Your task to perform on an android device: change the upload size in google photos Image 0: 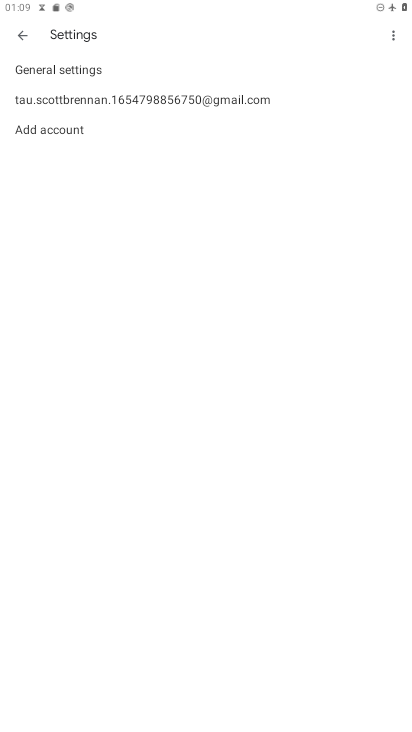
Step 0: press home button
Your task to perform on an android device: change the upload size in google photos Image 1: 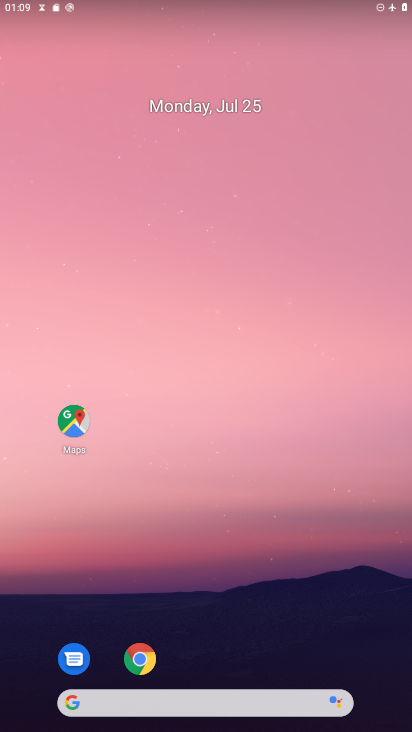
Step 1: drag from (194, 658) to (212, 287)
Your task to perform on an android device: change the upload size in google photos Image 2: 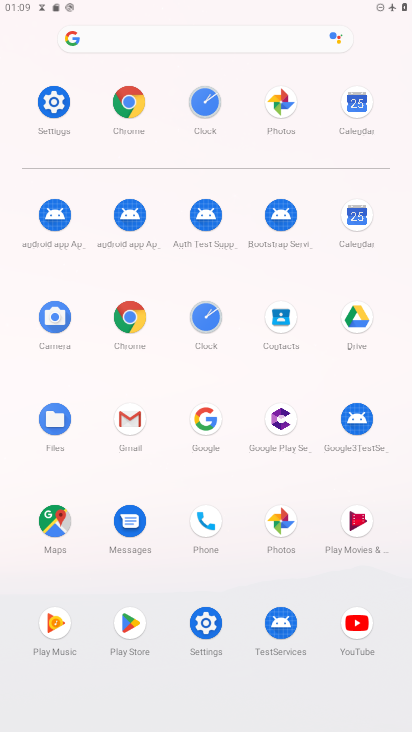
Step 2: click (287, 99)
Your task to perform on an android device: change the upload size in google photos Image 3: 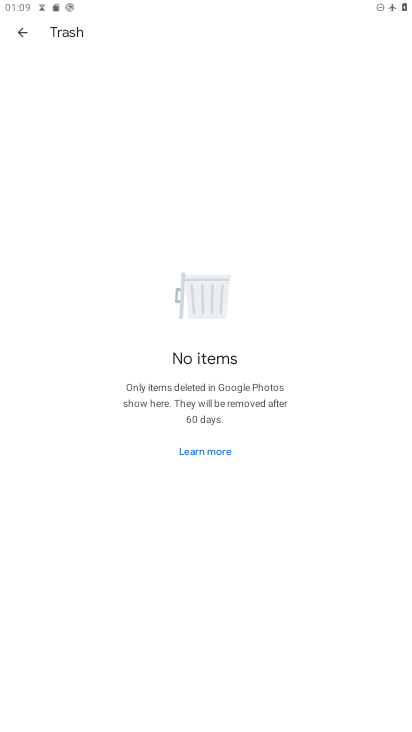
Step 3: click (27, 28)
Your task to perform on an android device: change the upload size in google photos Image 4: 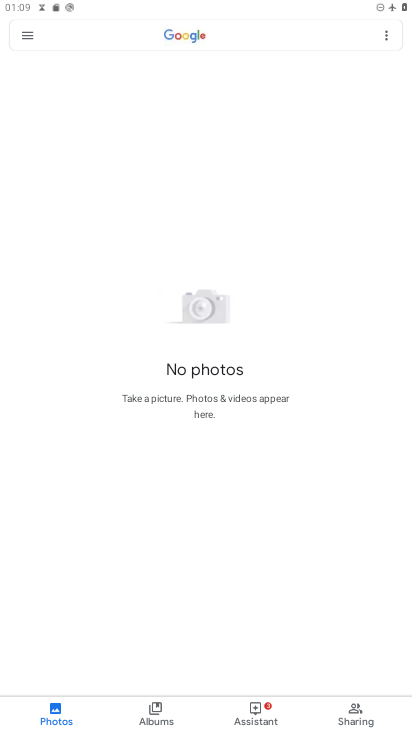
Step 4: click (27, 29)
Your task to perform on an android device: change the upload size in google photos Image 5: 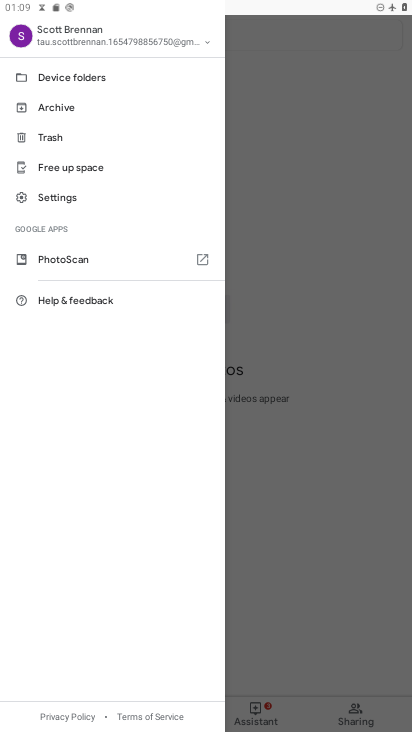
Step 5: click (72, 195)
Your task to perform on an android device: change the upload size in google photos Image 6: 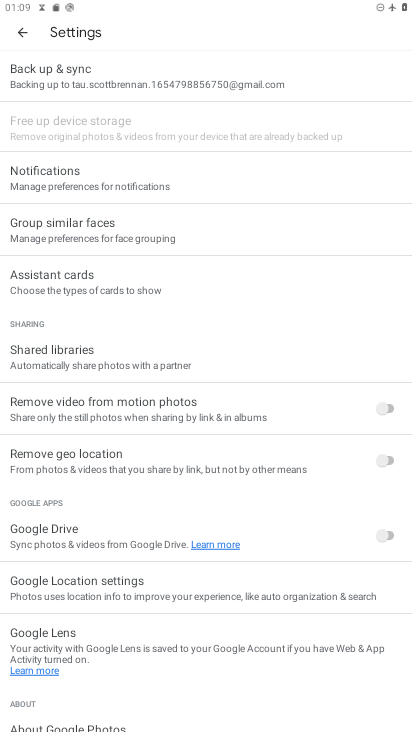
Step 6: click (25, 73)
Your task to perform on an android device: change the upload size in google photos Image 7: 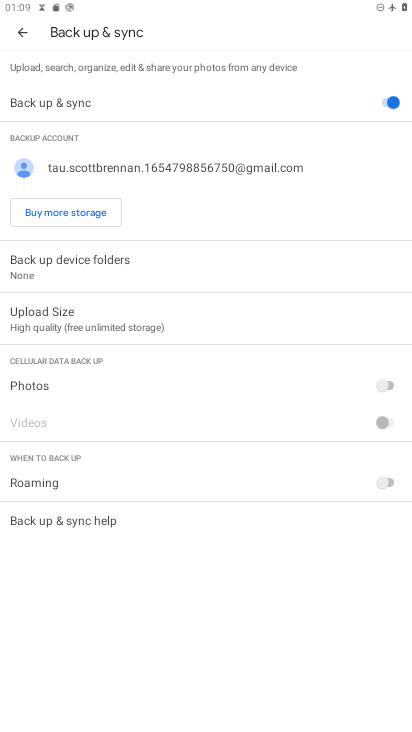
Step 7: click (65, 269)
Your task to perform on an android device: change the upload size in google photos Image 8: 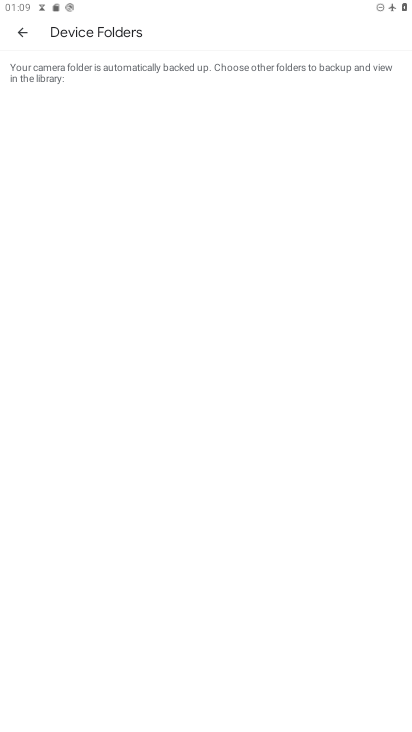
Step 8: click (32, 32)
Your task to perform on an android device: change the upload size in google photos Image 9: 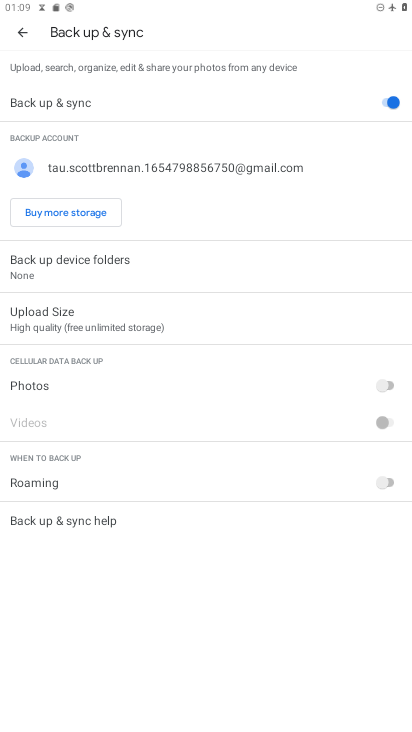
Step 9: click (132, 317)
Your task to perform on an android device: change the upload size in google photos Image 10: 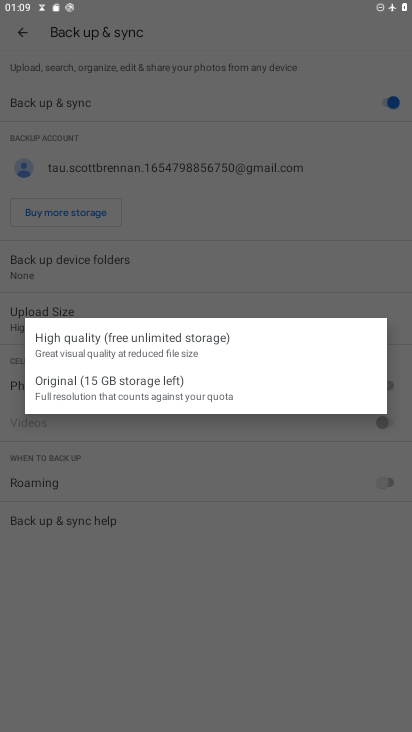
Step 10: click (81, 387)
Your task to perform on an android device: change the upload size in google photos Image 11: 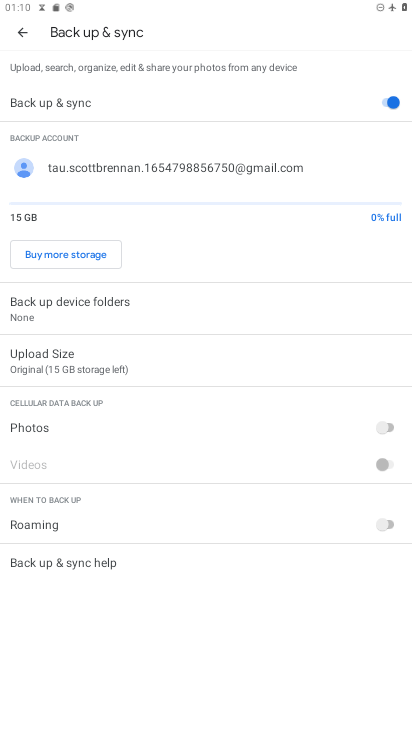
Step 11: task complete